Your task to perform on an android device: Go to Yahoo.com Image 0: 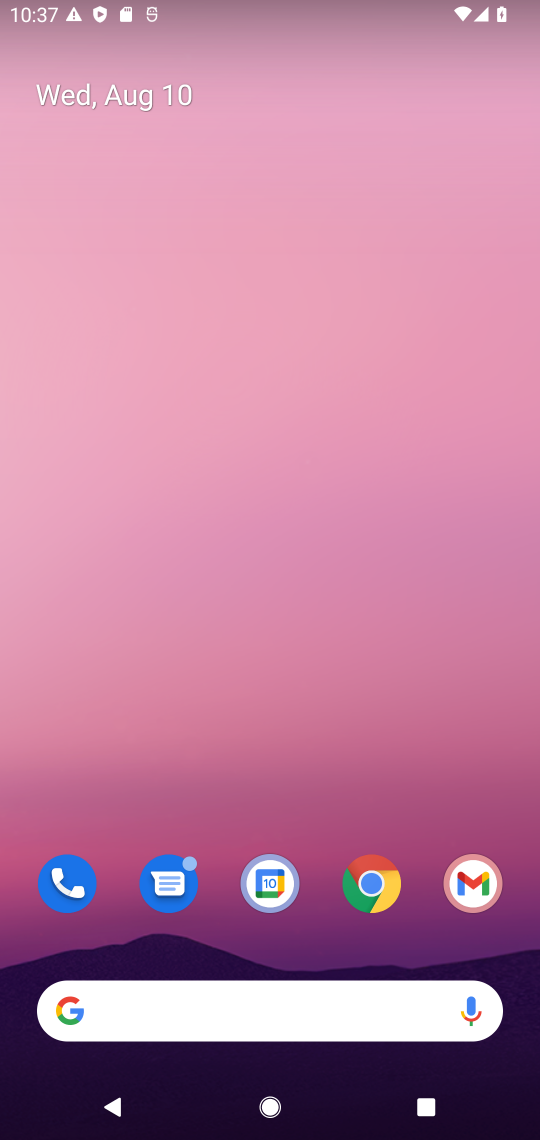
Step 0: drag from (317, 973) to (334, 31)
Your task to perform on an android device: Go to Yahoo.com Image 1: 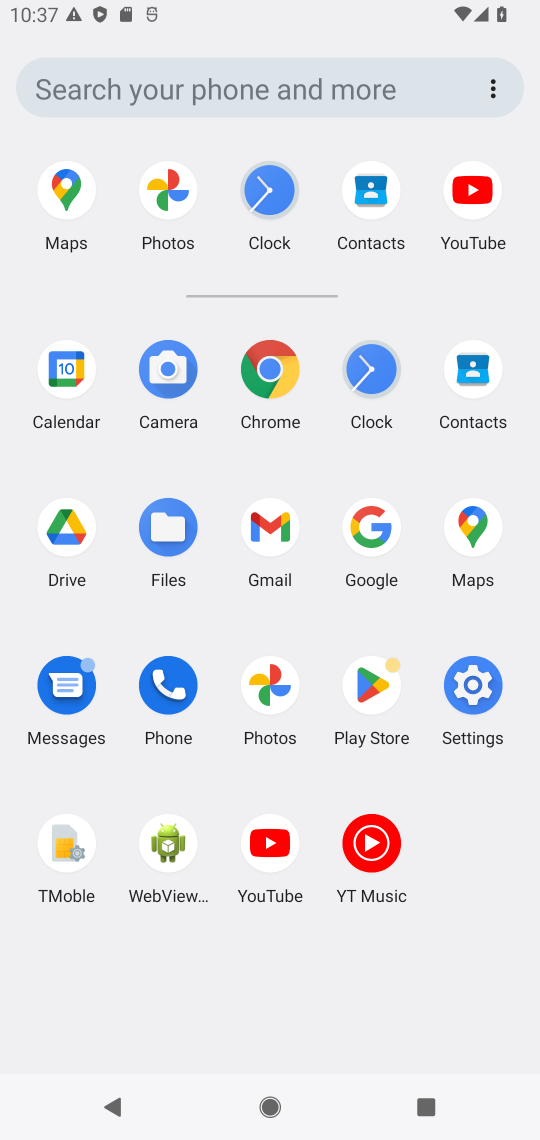
Step 1: click (283, 373)
Your task to perform on an android device: Go to Yahoo.com Image 2: 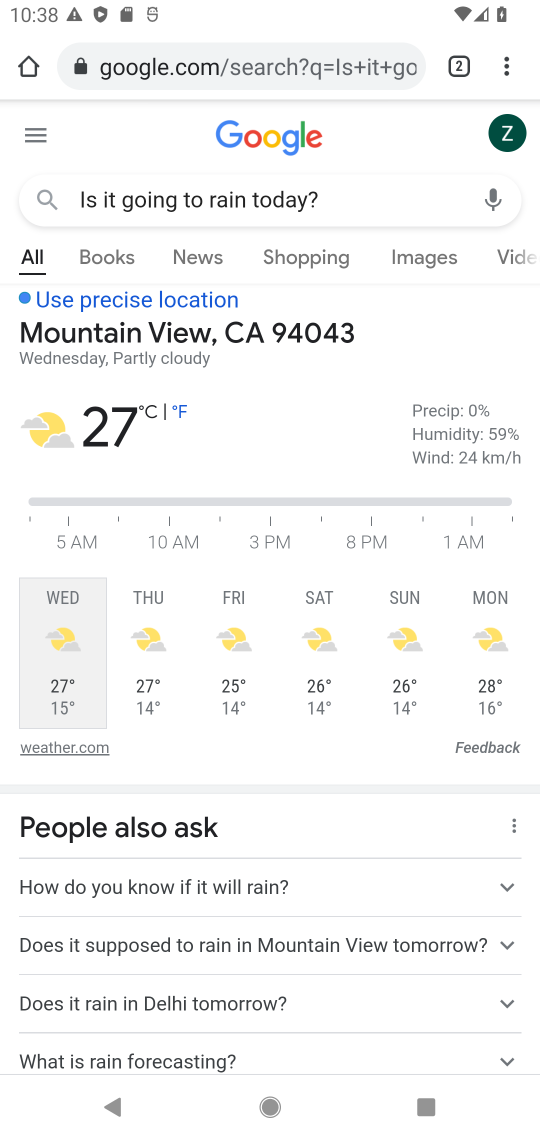
Step 2: click (277, 65)
Your task to perform on an android device: Go to Yahoo.com Image 3: 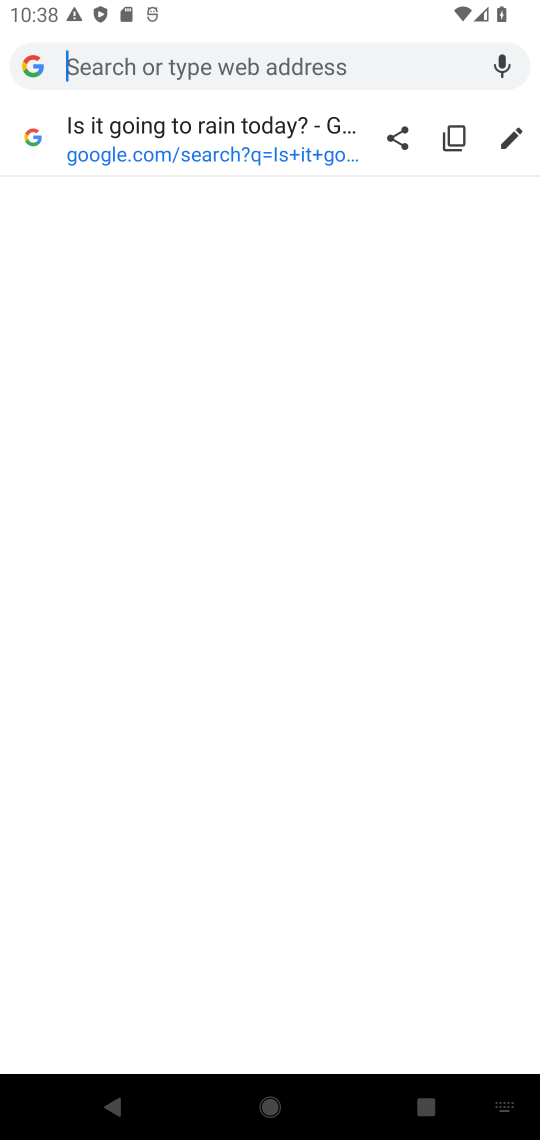
Step 3: type "Yahoo.com"
Your task to perform on an android device: Go to Yahoo.com Image 4: 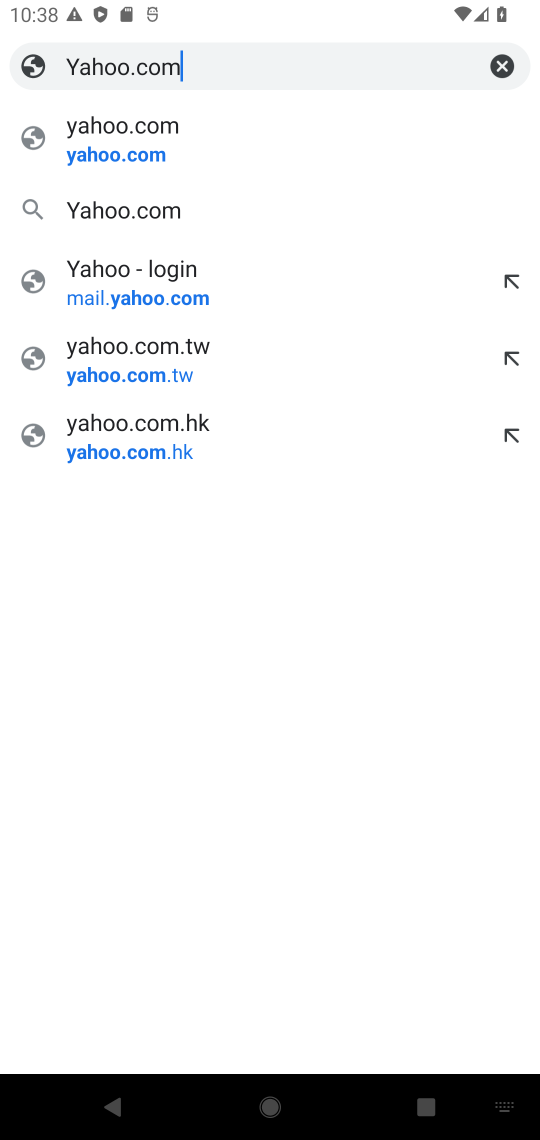
Step 4: click (145, 144)
Your task to perform on an android device: Go to Yahoo.com Image 5: 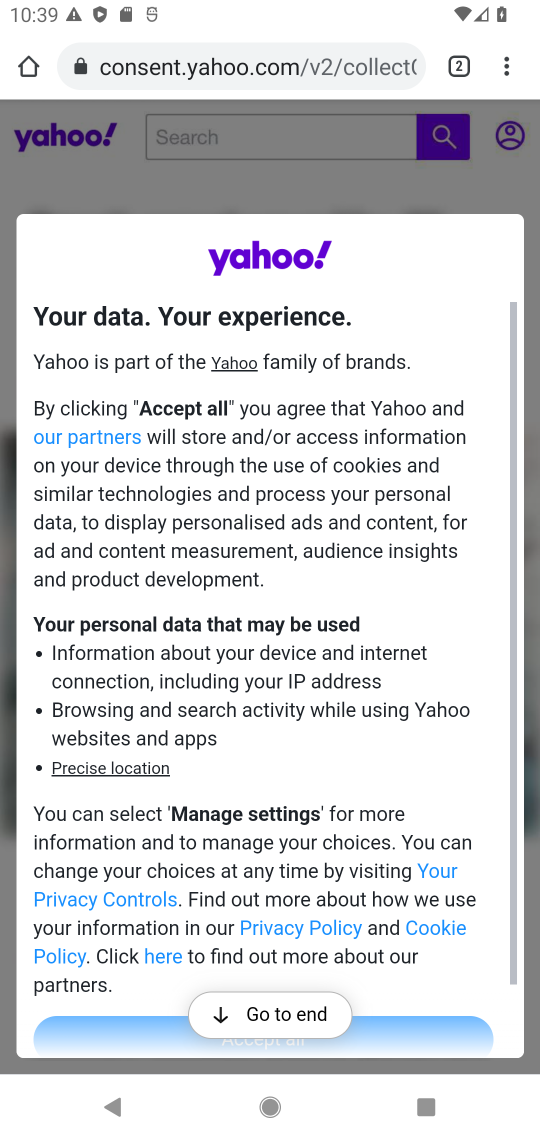
Step 5: drag from (386, 980) to (456, 283)
Your task to perform on an android device: Go to Yahoo.com Image 6: 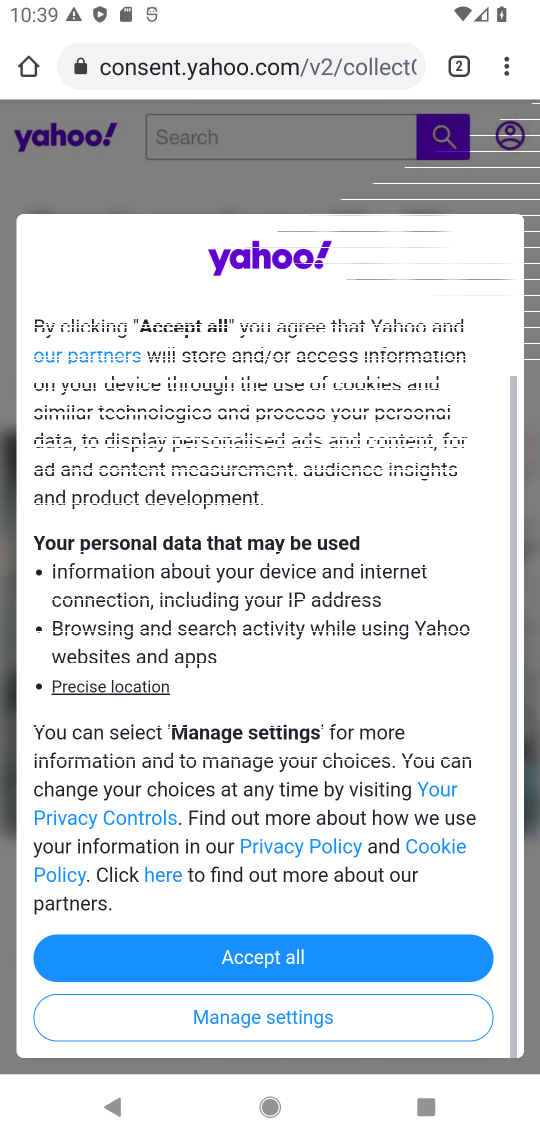
Step 6: click (325, 941)
Your task to perform on an android device: Go to Yahoo.com Image 7: 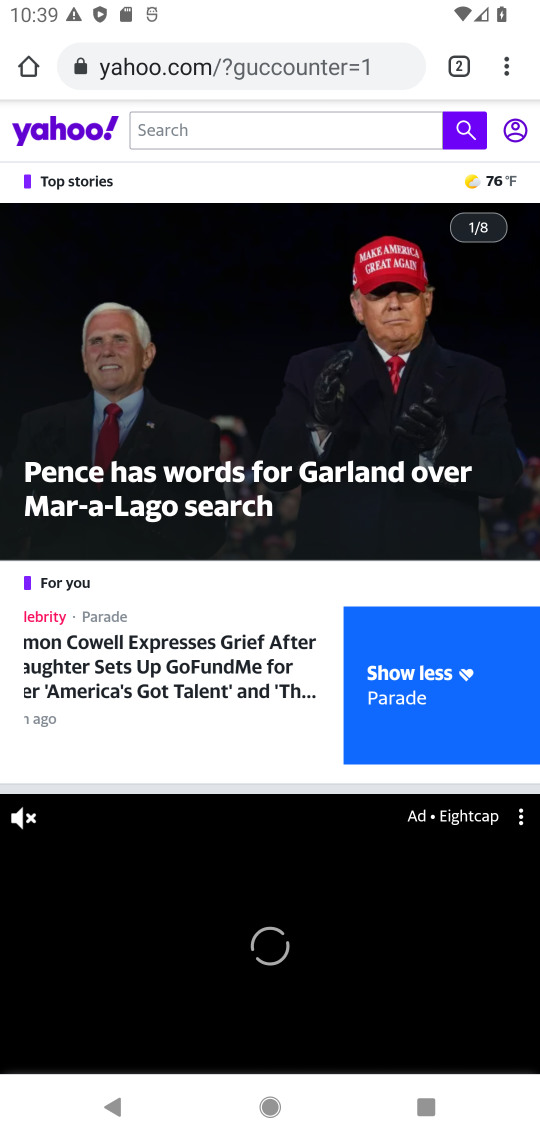
Step 7: task complete